Your task to perform on an android device: Go to display settings Image 0: 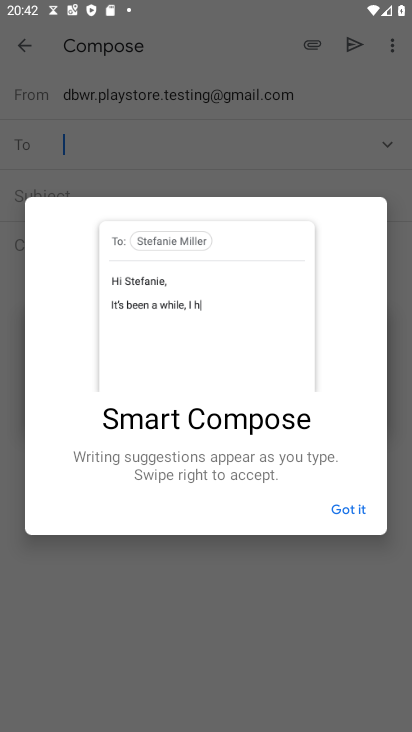
Step 0: press home button
Your task to perform on an android device: Go to display settings Image 1: 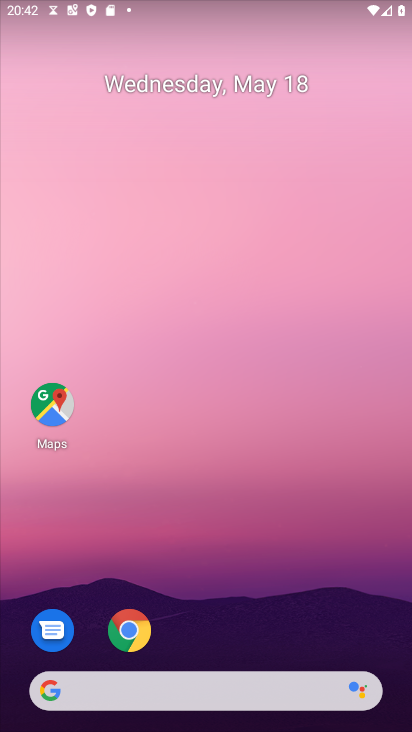
Step 1: drag from (143, 656) to (371, 103)
Your task to perform on an android device: Go to display settings Image 2: 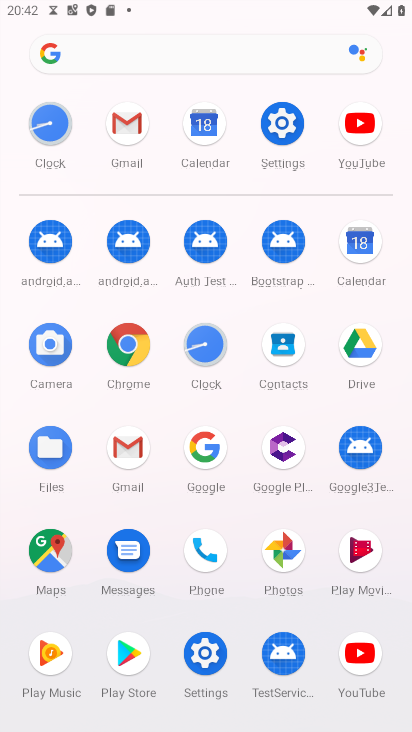
Step 2: click (285, 130)
Your task to perform on an android device: Go to display settings Image 3: 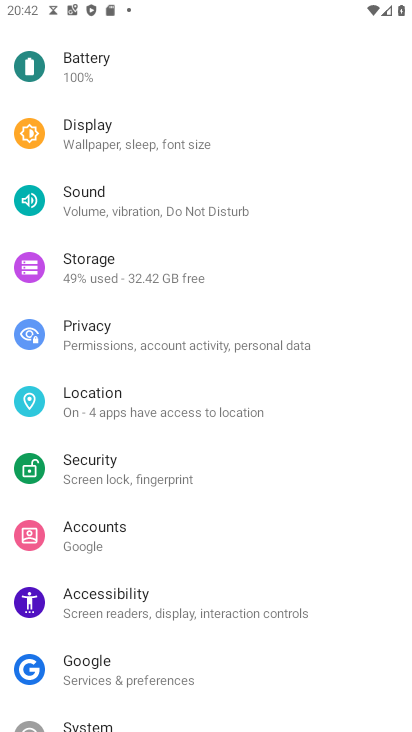
Step 3: click (136, 132)
Your task to perform on an android device: Go to display settings Image 4: 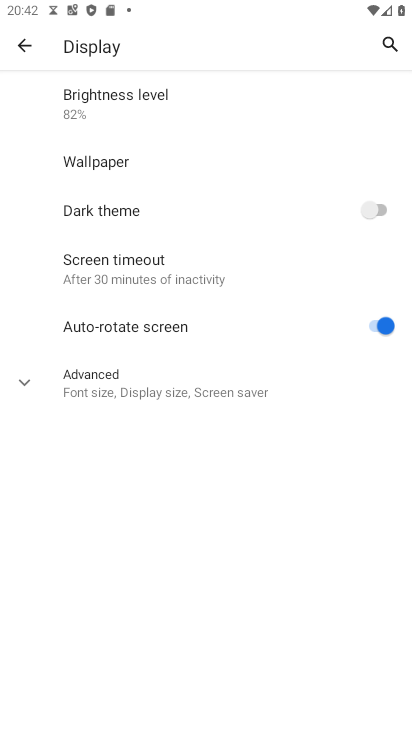
Step 4: task complete